Your task to perform on an android device: Open calendar and show me the first week of next month Image 0: 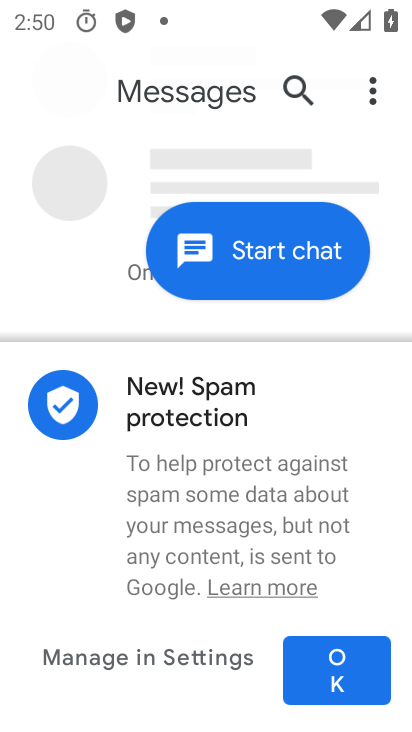
Step 0: press home button
Your task to perform on an android device: Open calendar and show me the first week of next month Image 1: 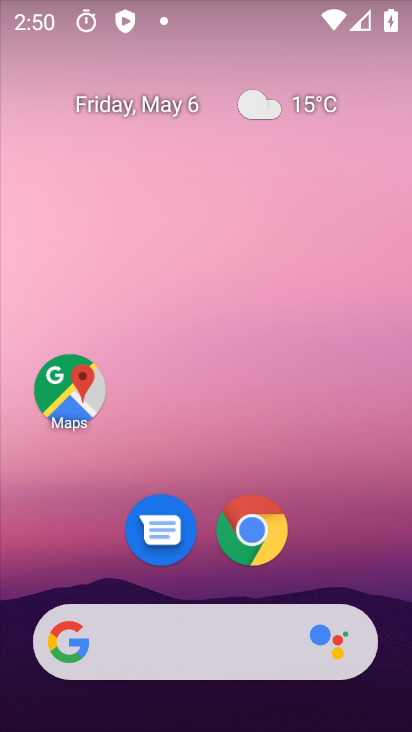
Step 1: drag from (303, 531) to (380, 111)
Your task to perform on an android device: Open calendar and show me the first week of next month Image 2: 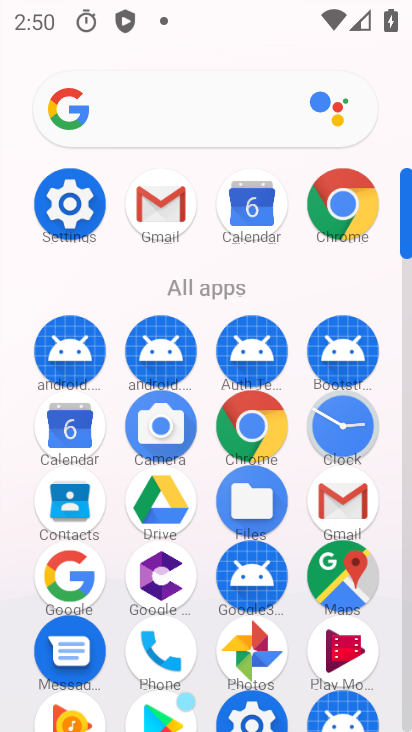
Step 2: click (260, 226)
Your task to perform on an android device: Open calendar and show me the first week of next month Image 3: 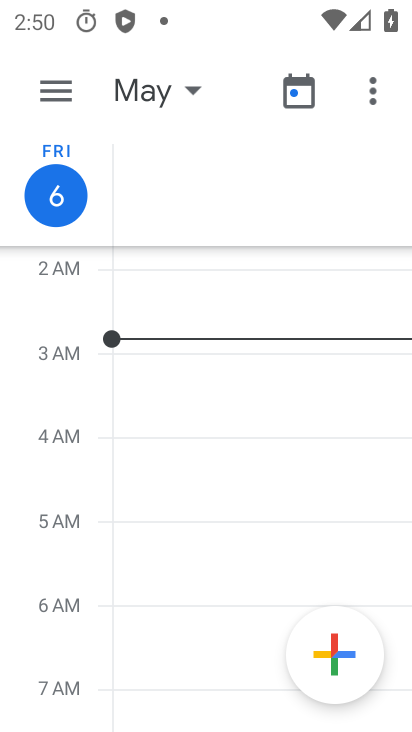
Step 3: click (142, 83)
Your task to perform on an android device: Open calendar and show me the first week of next month Image 4: 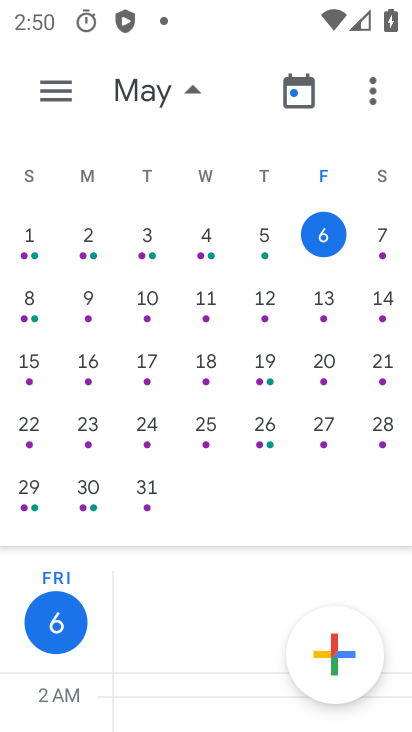
Step 4: drag from (265, 349) to (42, 354)
Your task to perform on an android device: Open calendar and show me the first week of next month Image 5: 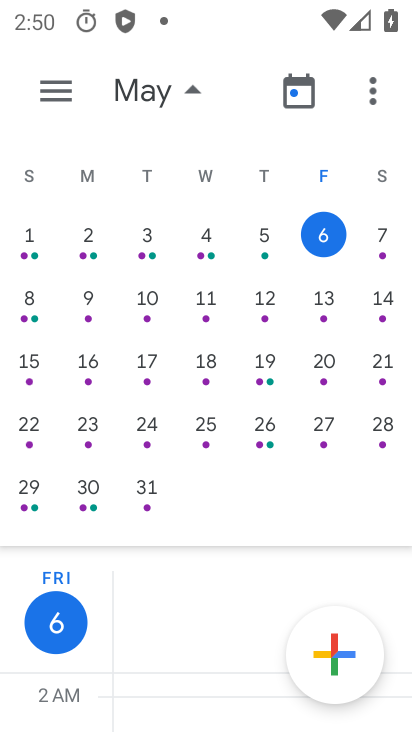
Step 5: click (393, 245)
Your task to perform on an android device: Open calendar and show me the first week of next month Image 6: 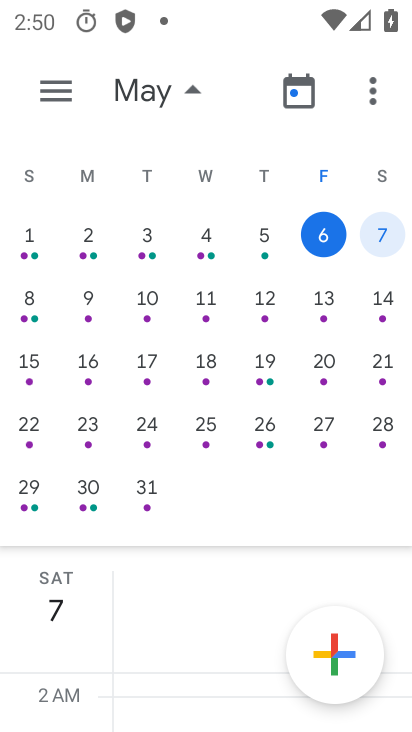
Step 6: task complete